Your task to perform on an android device: Open the web browser Image 0: 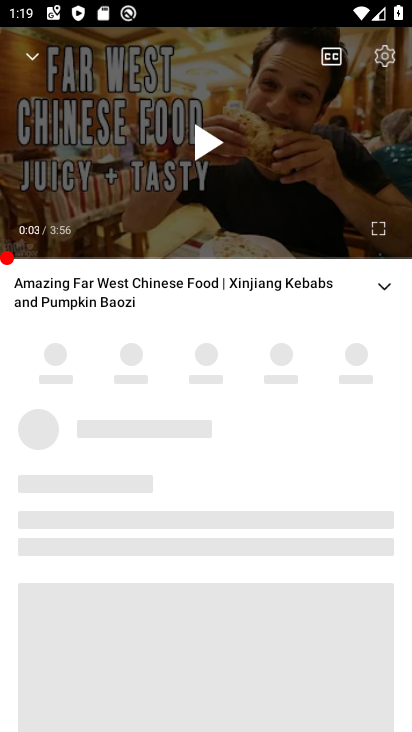
Step 0: press home button
Your task to perform on an android device: Open the web browser Image 1: 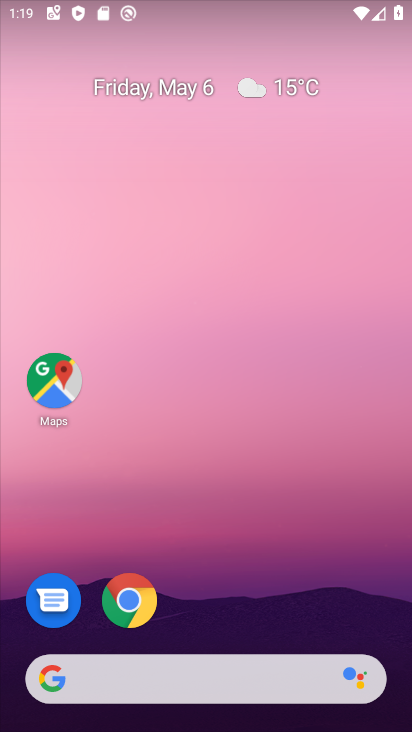
Step 1: task complete